Your task to perform on an android device: Show me recent news Image 0: 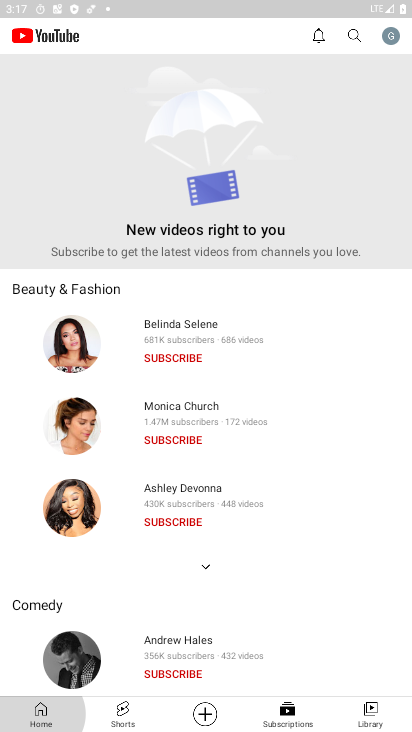
Step 0: press home button
Your task to perform on an android device: Show me recent news Image 1: 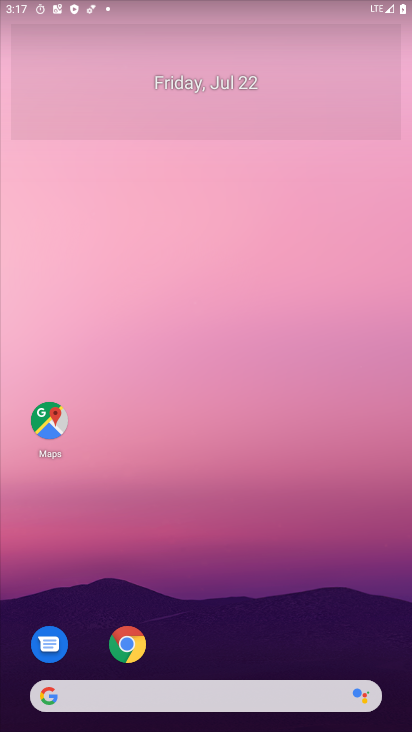
Step 1: click (41, 695)
Your task to perform on an android device: Show me recent news Image 2: 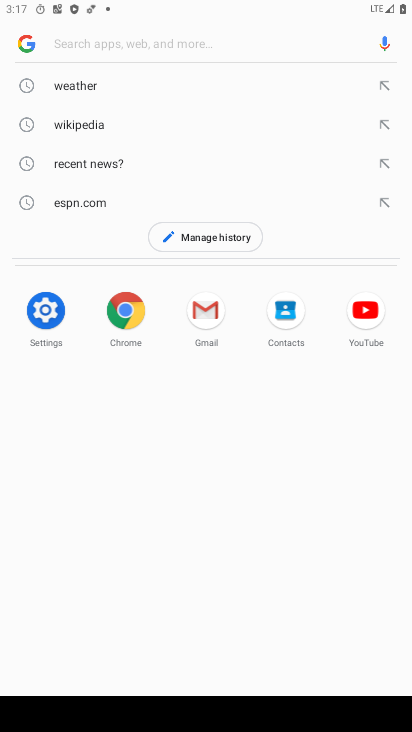
Step 2: click (89, 161)
Your task to perform on an android device: Show me recent news Image 3: 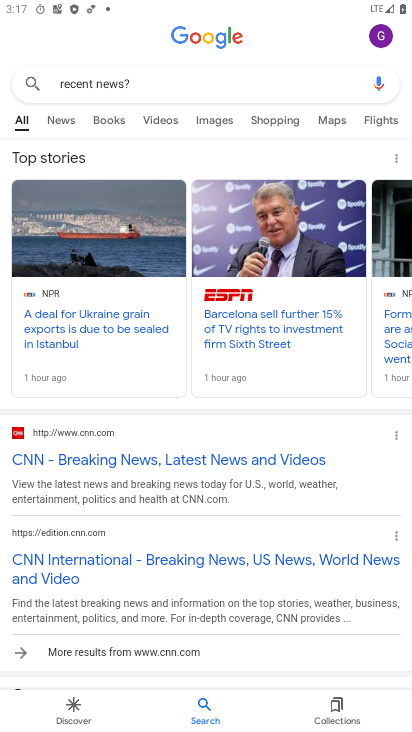
Step 3: task complete